Your task to perform on an android device: turn off translation in the chrome app Image 0: 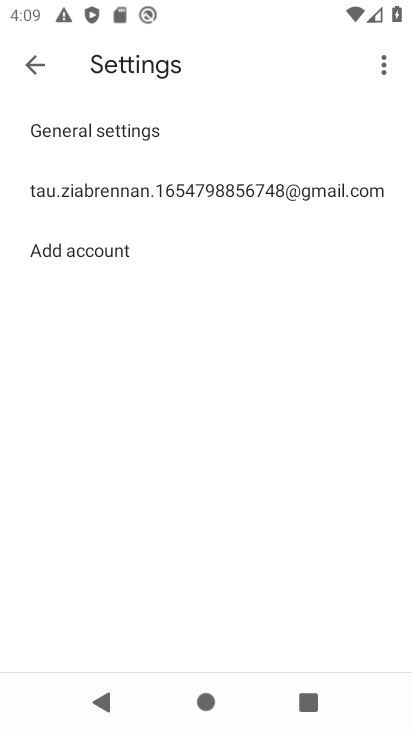
Step 0: drag from (286, 548) to (371, 11)
Your task to perform on an android device: turn off translation in the chrome app Image 1: 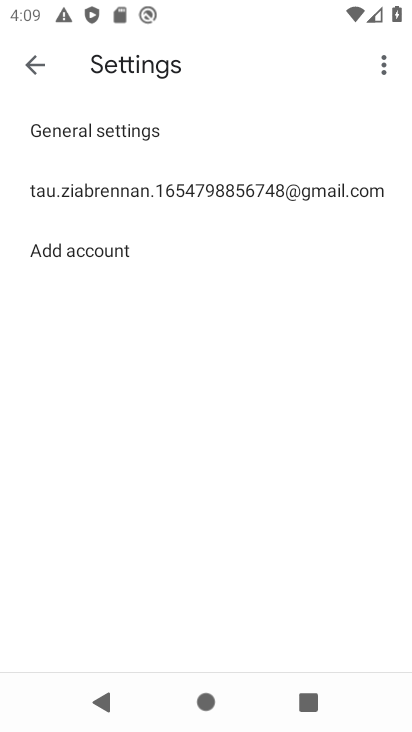
Step 1: press home button
Your task to perform on an android device: turn off translation in the chrome app Image 2: 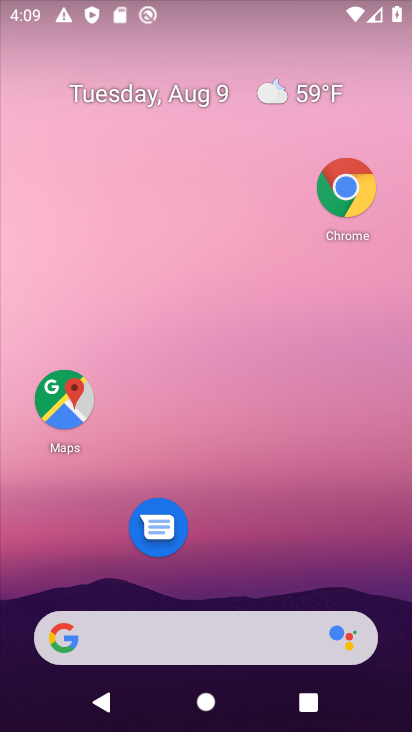
Step 2: click (328, 125)
Your task to perform on an android device: turn off translation in the chrome app Image 3: 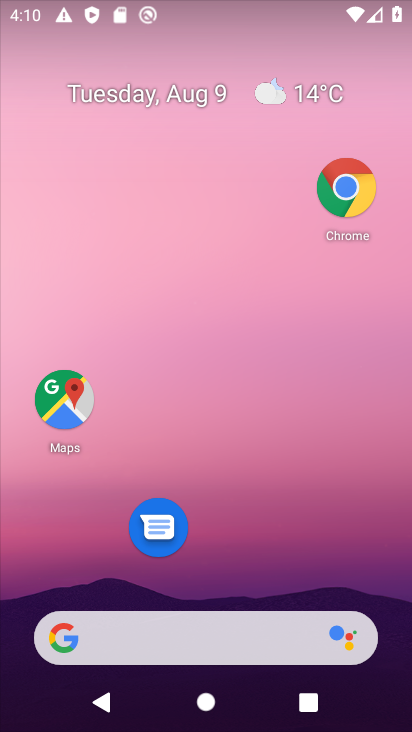
Step 3: click (348, 168)
Your task to perform on an android device: turn off translation in the chrome app Image 4: 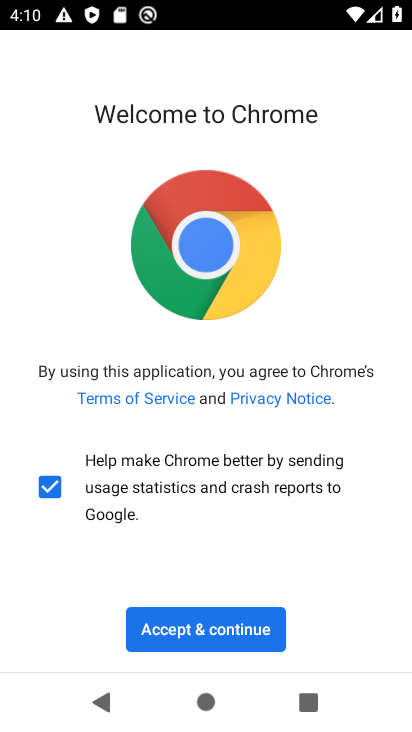
Step 4: click (193, 643)
Your task to perform on an android device: turn off translation in the chrome app Image 5: 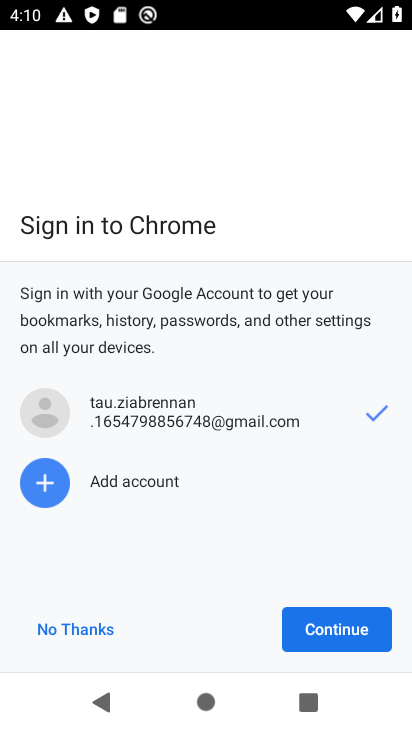
Step 5: click (330, 629)
Your task to perform on an android device: turn off translation in the chrome app Image 6: 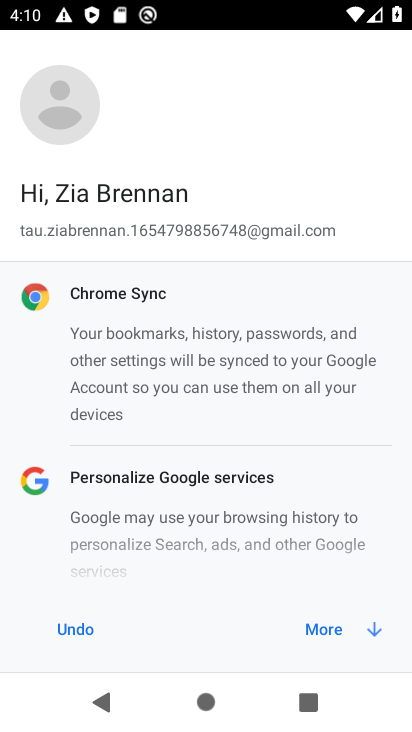
Step 6: click (333, 618)
Your task to perform on an android device: turn off translation in the chrome app Image 7: 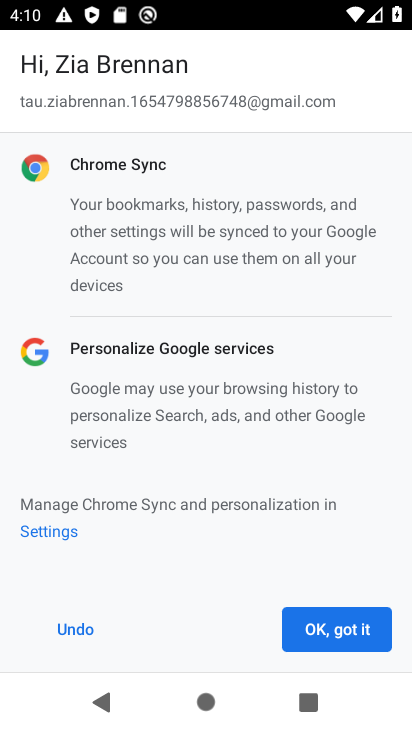
Step 7: click (333, 618)
Your task to perform on an android device: turn off translation in the chrome app Image 8: 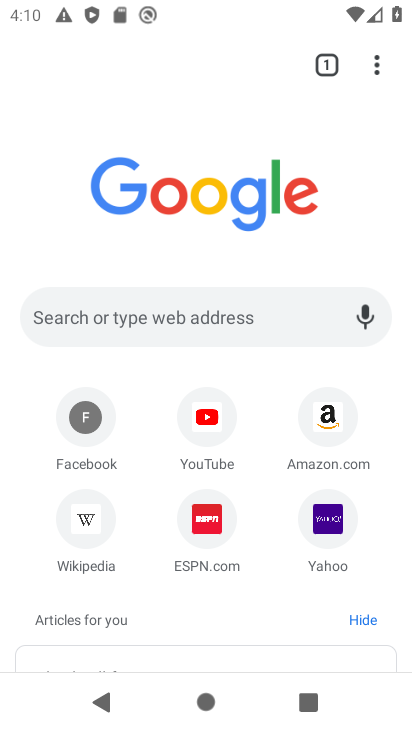
Step 8: click (388, 57)
Your task to perform on an android device: turn off translation in the chrome app Image 9: 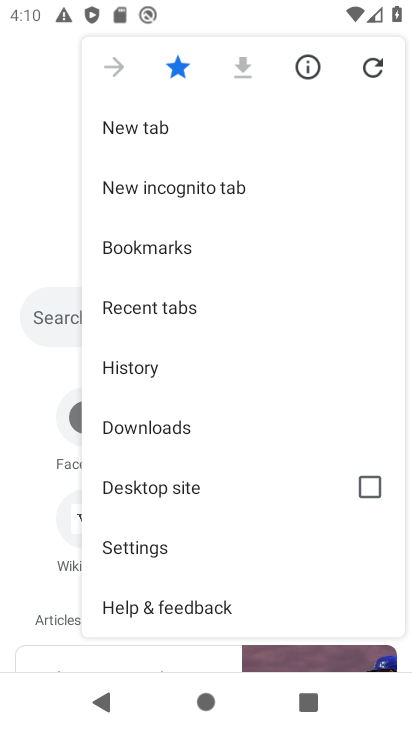
Step 9: click (192, 563)
Your task to perform on an android device: turn off translation in the chrome app Image 10: 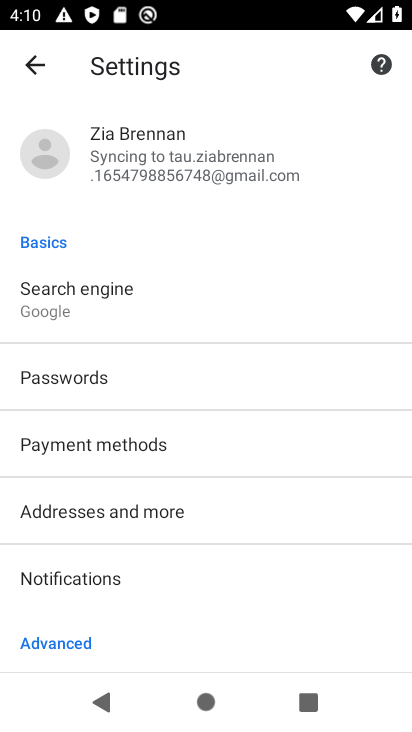
Step 10: click (109, 571)
Your task to perform on an android device: turn off translation in the chrome app Image 11: 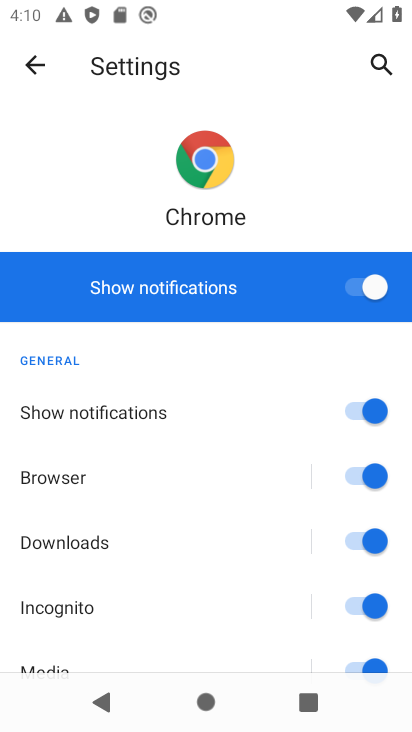
Step 11: click (376, 279)
Your task to perform on an android device: turn off translation in the chrome app Image 12: 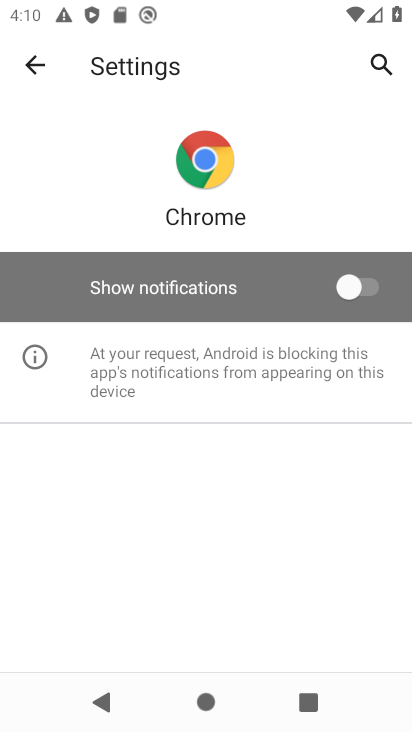
Step 12: task complete